Your task to perform on an android device: toggle location history Image 0: 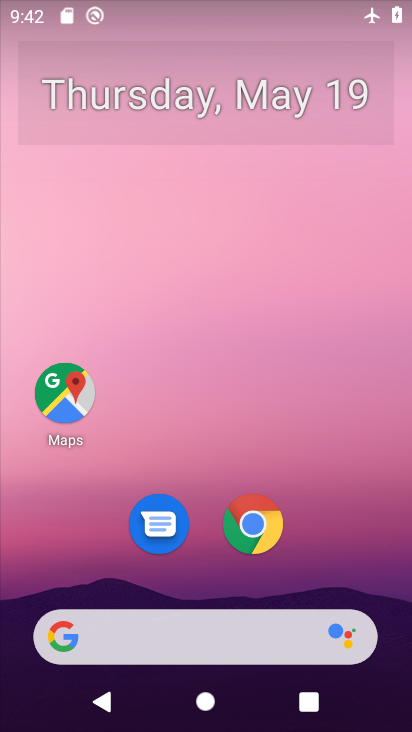
Step 0: drag from (265, 431) to (234, 0)
Your task to perform on an android device: toggle location history Image 1: 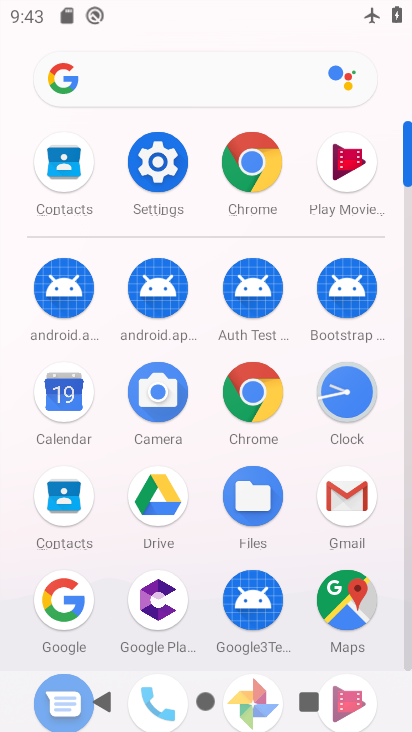
Step 1: click (159, 175)
Your task to perform on an android device: toggle location history Image 2: 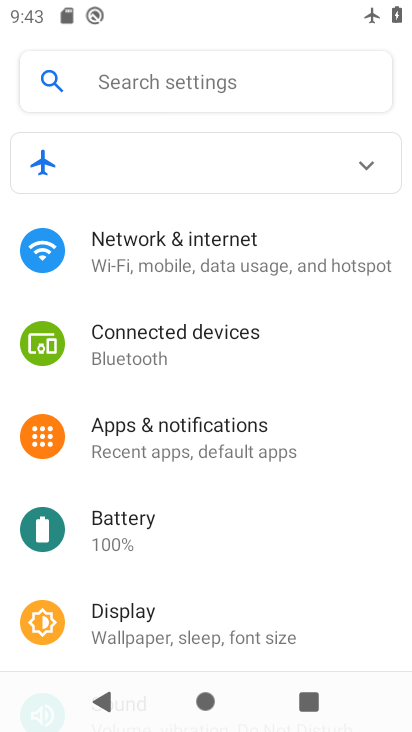
Step 2: drag from (240, 525) to (226, 150)
Your task to perform on an android device: toggle location history Image 3: 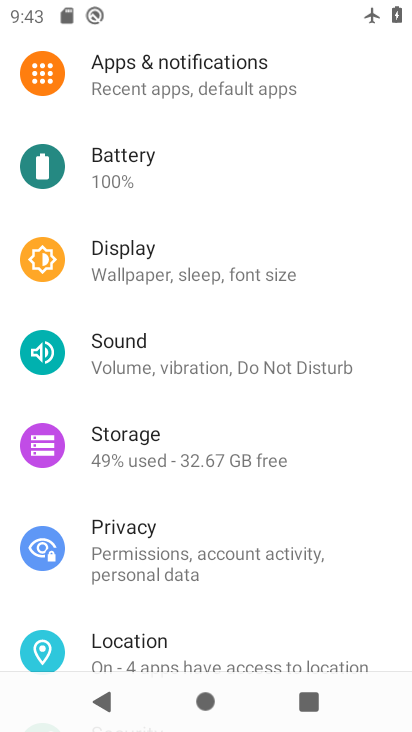
Step 3: drag from (241, 426) to (249, 153)
Your task to perform on an android device: toggle location history Image 4: 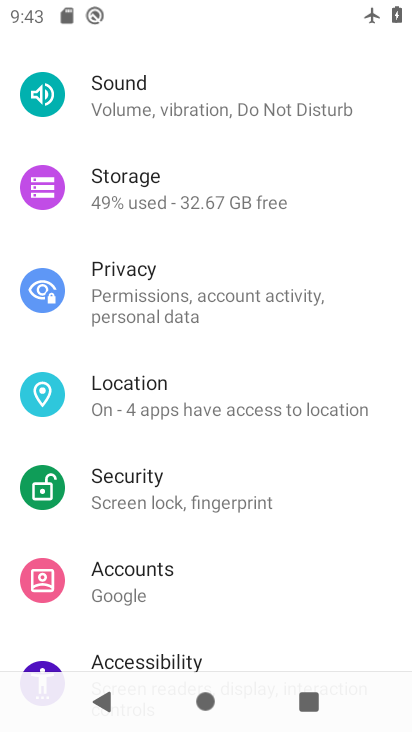
Step 4: click (221, 406)
Your task to perform on an android device: toggle location history Image 5: 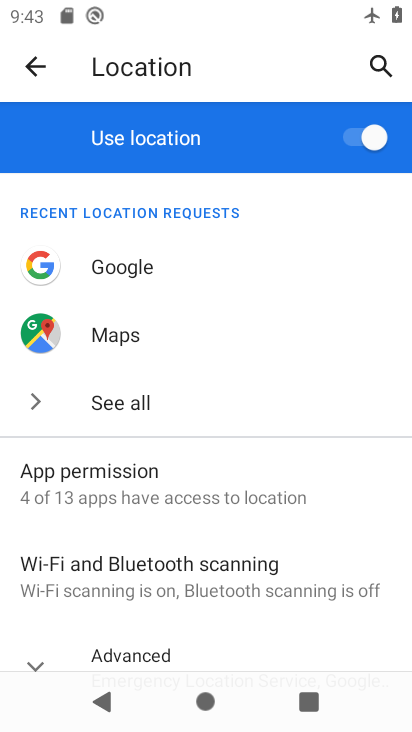
Step 5: drag from (221, 405) to (223, 156)
Your task to perform on an android device: toggle location history Image 6: 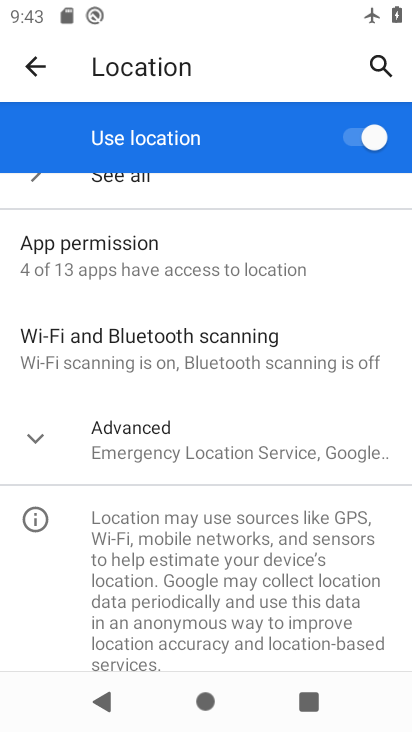
Step 6: click (40, 437)
Your task to perform on an android device: toggle location history Image 7: 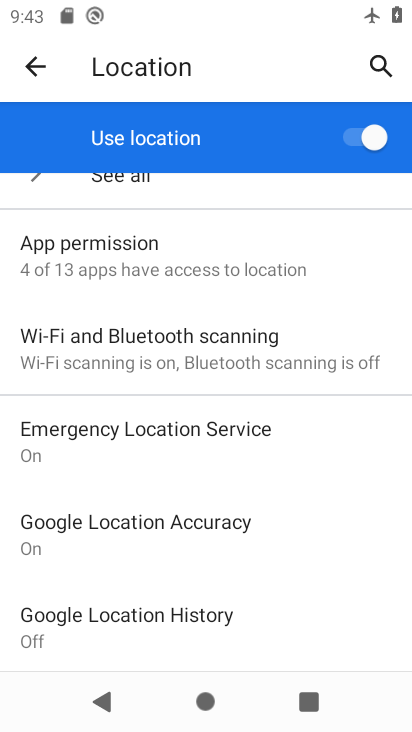
Step 7: click (218, 616)
Your task to perform on an android device: toggle location history Image 8: 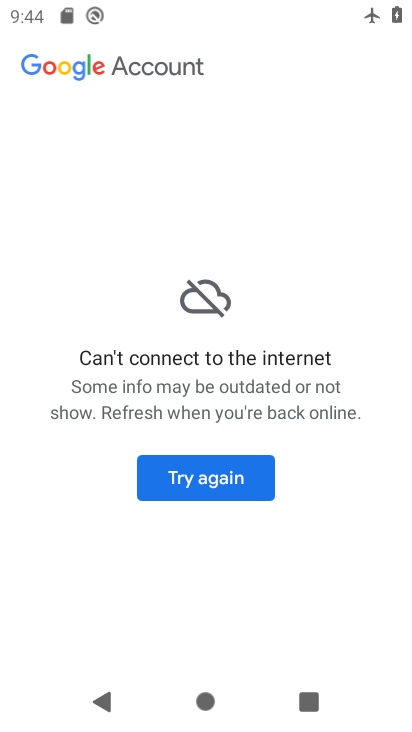
Step 8: task complete